Your task to perform on an android device: Open Wikipedia Image 0: 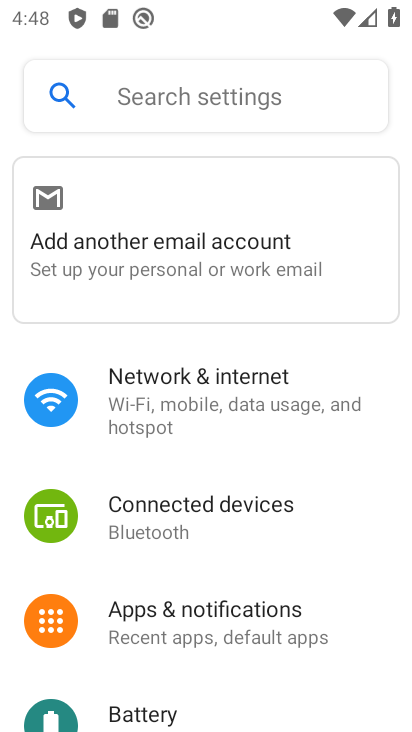
Step 0: press back button
Your task to perform on an android device: Open Wikipedia Image 1: 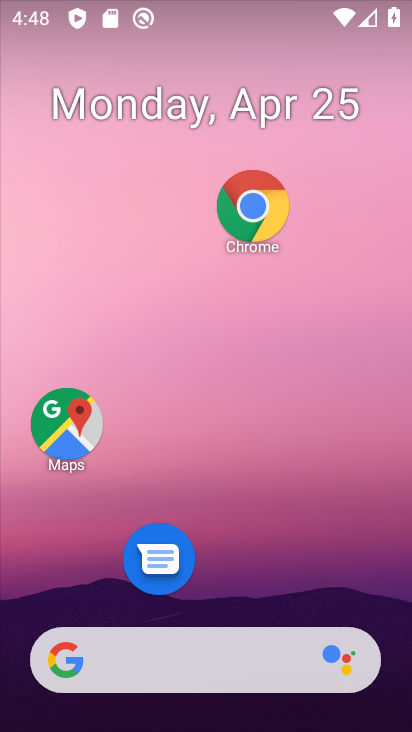
Step 1: click (258, 210)
Your task to perform on an android device: Open Wikipedia Image 2: 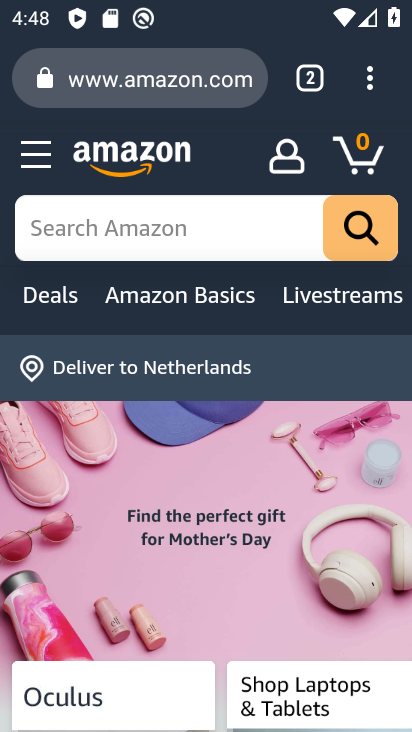
Step 2: click (220, 86)
Your task to perform on an android device: Open Wikipedia Image 3: 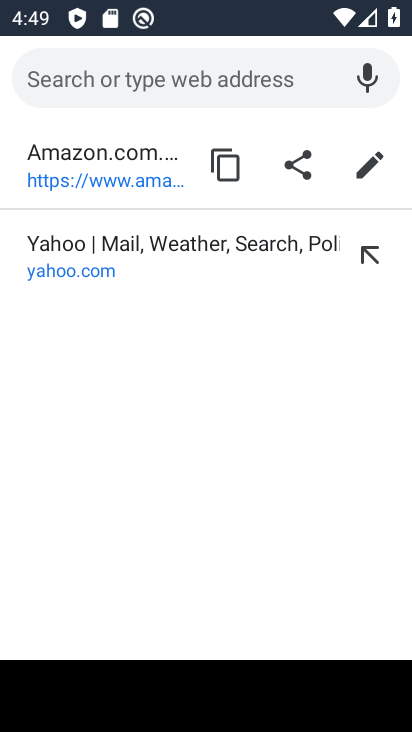
Step 3: type "Wikpedia"
Your task to perform on an android device: Open Wikipedia Image 4: 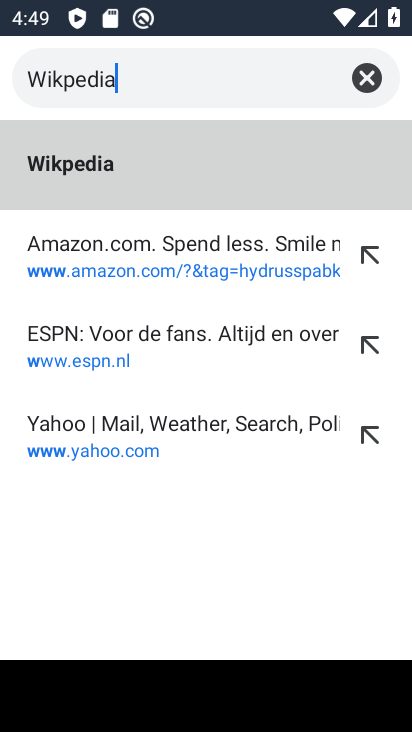
Step 4: type ""
Your task to perform on an android device: Open Wikipedia Image 5: 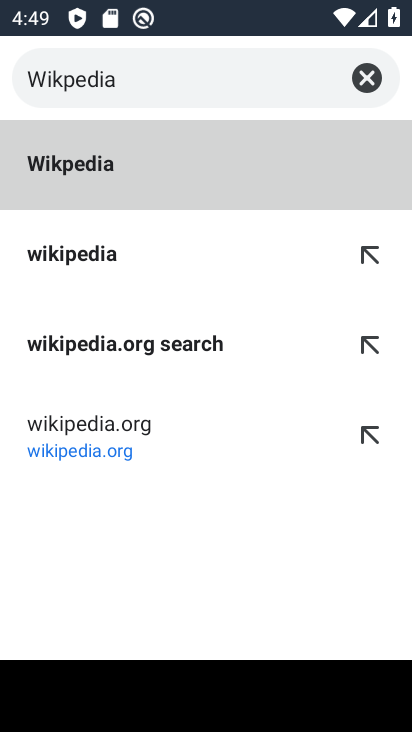
Step 5: click (49, 163)
Your task to perform on an android device: Open Wikipedia Image 6: 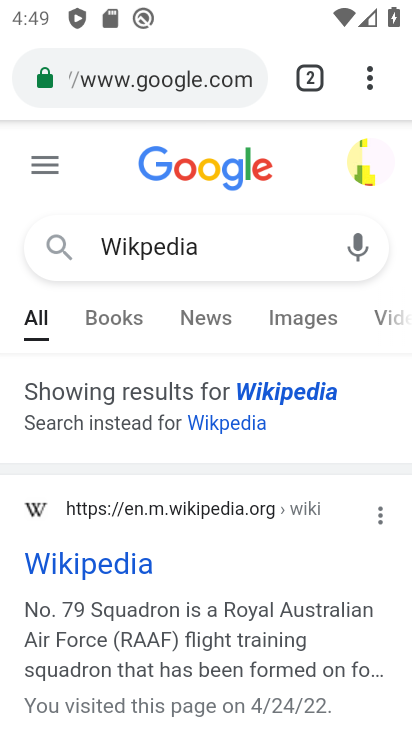
Step 6: click (81, 563)
Your task to perform on an android device: Open Wikipedia Image 7: 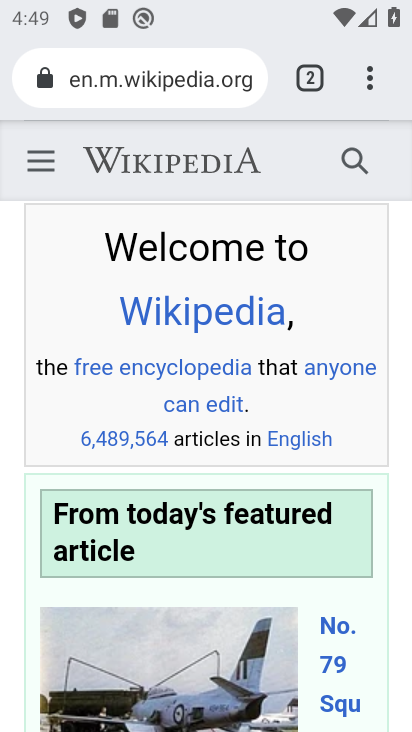
Step 7: task complete